Your task to perform on an android device: turn on location history Image 0: 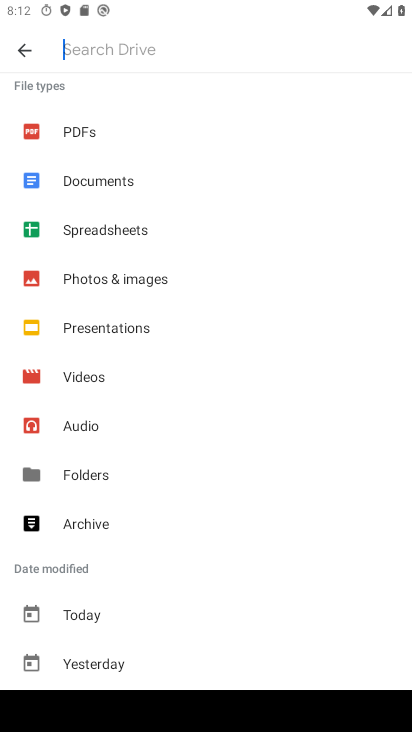
Step 0: drag from (231, 622) to (270, 209)
Your task to perform on an android device: turn on location history Image 1: 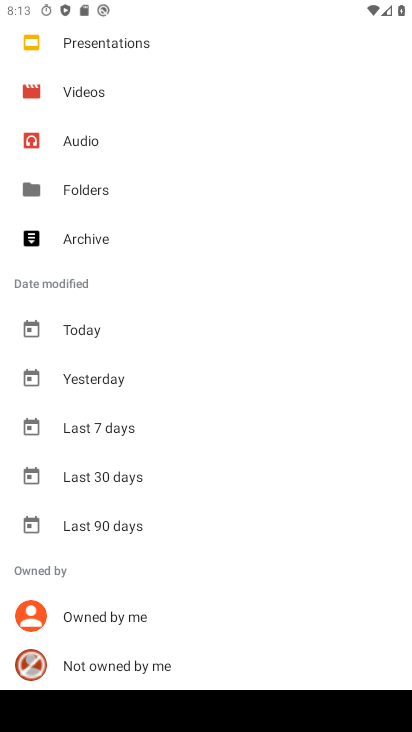
Step 1: drag from (225, 260) to (319, 165)
Your task to perform on an android device: turn on location history Image 2: 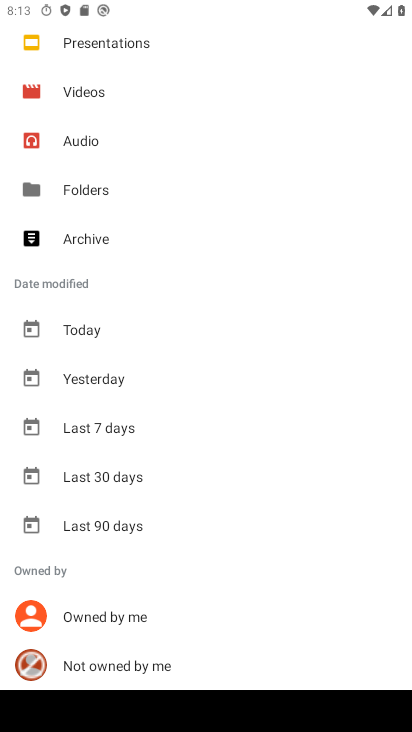
Step 2: press home button
Your task to perform on an android device: turn on location history Image 3: 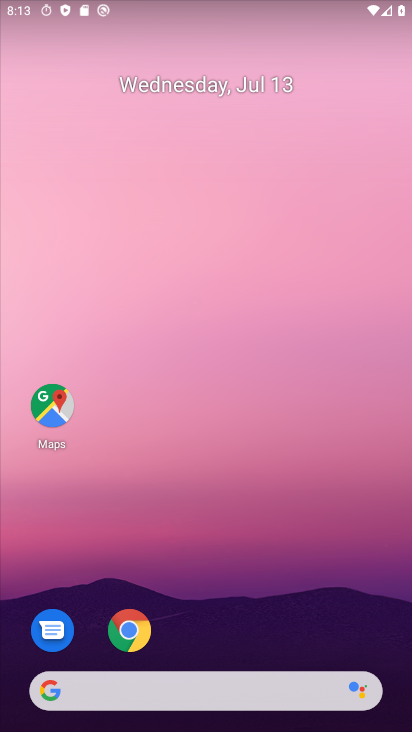
Step 3: drag from (203, 603) to (275, 13)
Your task to perform on an android device: turn on location history Image 4: 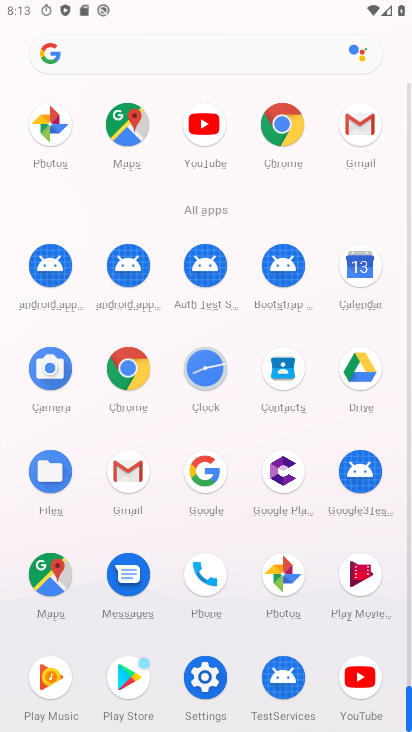
Step 4: click (202, 682)
Your task to perform on an android device: turn on location history Image 5: 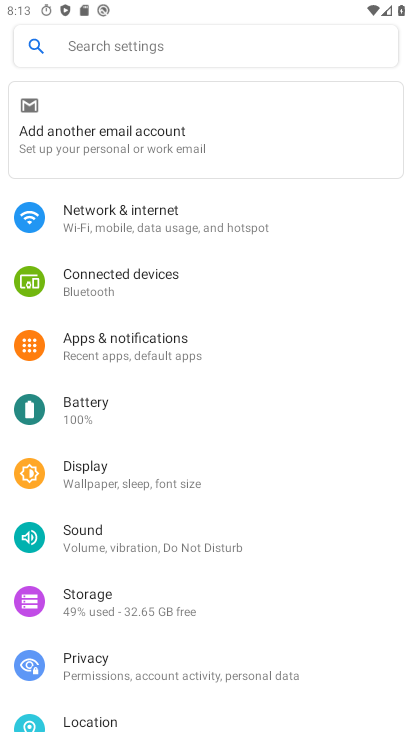
Step 5: drag from (166, 661) to (259, 160)
Your task to perform on an android device: turn on location history Image 6: 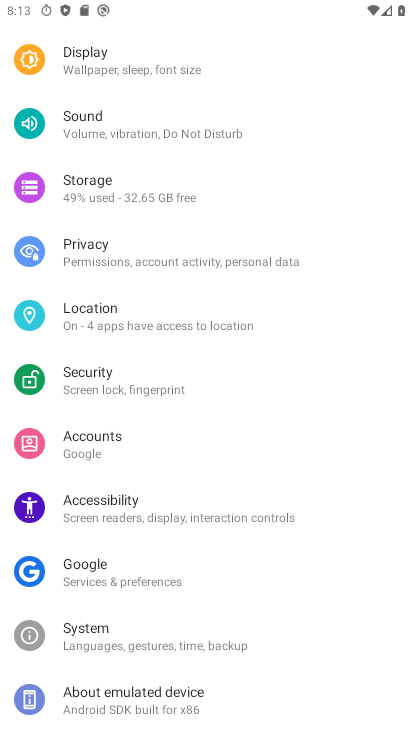
Step 6: click (121, 319)
Your task to perform on an android device: turn on location history Image 7: 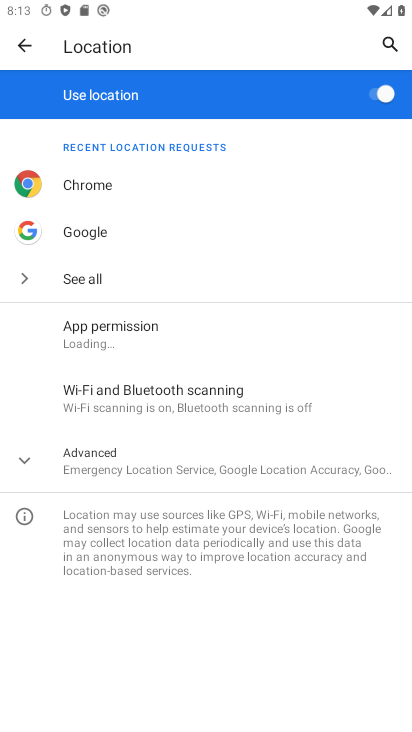
Step 7: click (133, 465)
Your task to perform on an android device: turn on location history Image 8: 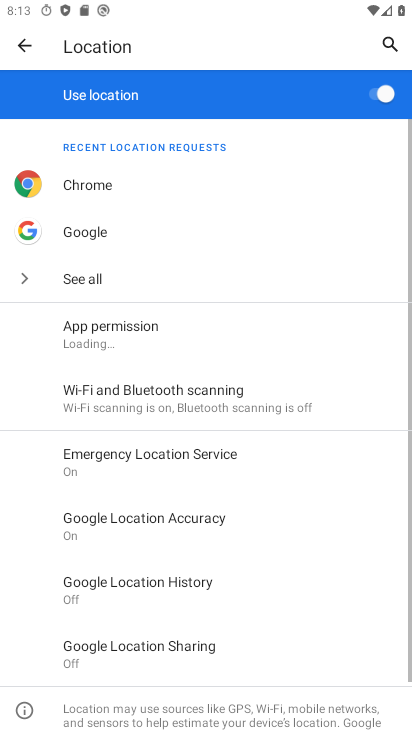
Step 8: drag from (307, 528) to (332, 229)
Your task to perform on an android device: turn on location history Image 9: 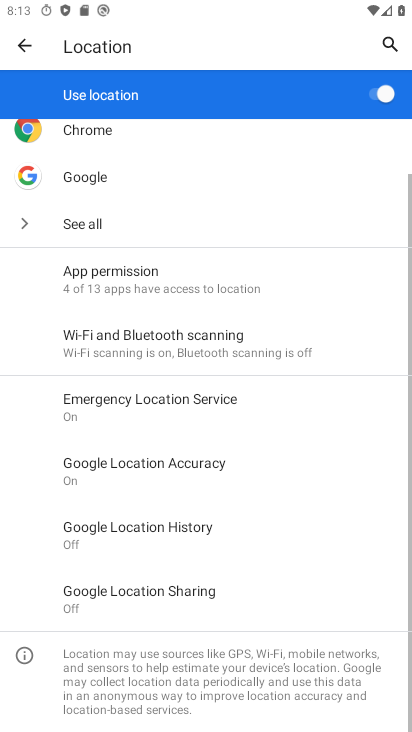
Step 9: click (164, 542)
Your task to perform on an android device: turn on location history Image 10: 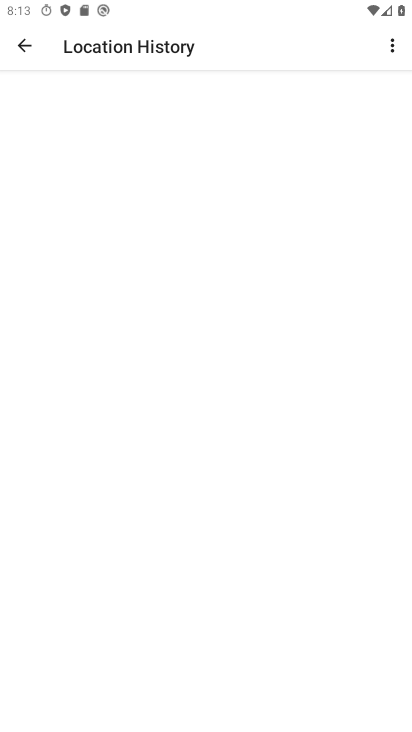
Step 10: drag from (278, 484) to (271, 270)
Your task to perform on an android device: turn on location history Image 11: 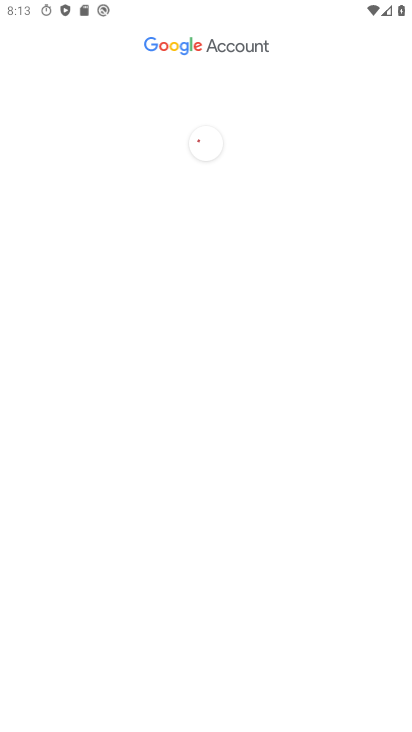
Step 11: drag from (230, 563) to (275, 163)
Your task to perform on an android device: turn on location history Image 12: 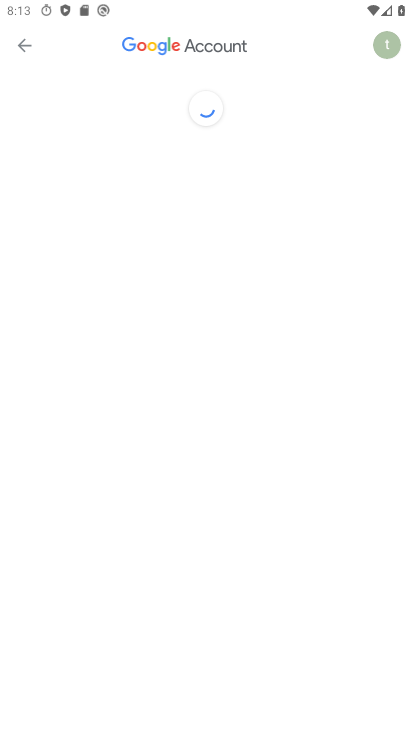
Step 12: drag from (217, 551) to (239, 315)
Your task to perform on an android device: turn on location history Image 13: 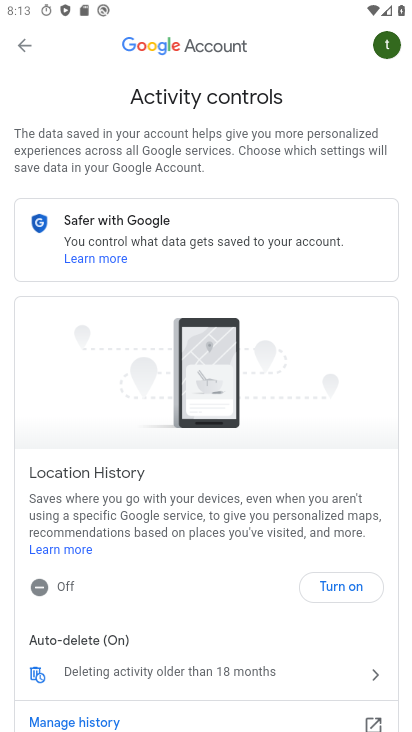
Step 13: drag from (211, 423) to (227, 315)
Your task to perform on an android device: turn on location history Image 14: 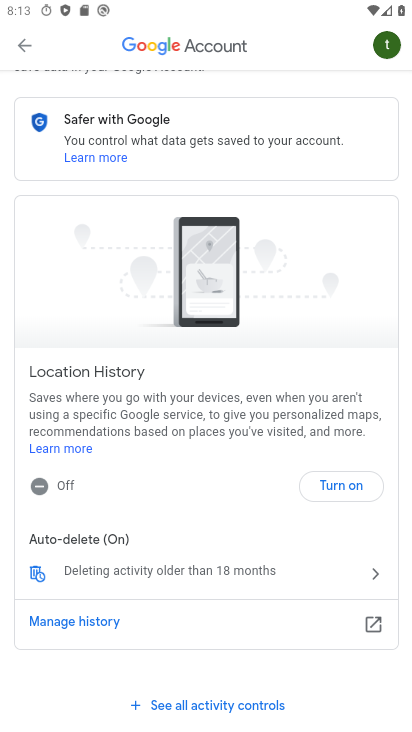
Step 14: drag from (214, 572) to (254, 475)
Your task to perform on an android device: turn on location history Image 15: 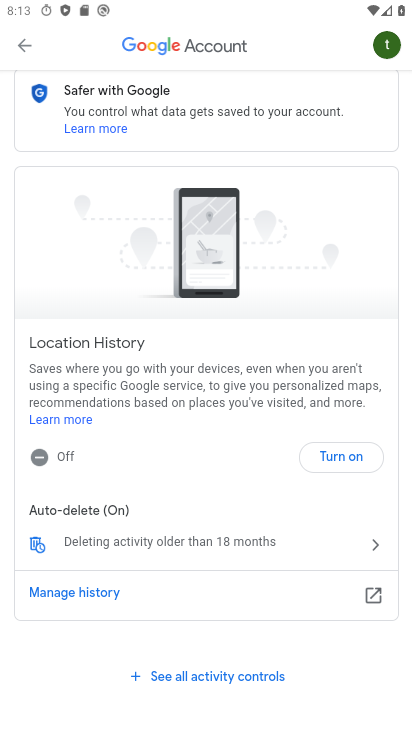
Step 15: drag from (199, 582) to (234, 331)
Your task to perform on an android device: turn on location history Image 16: 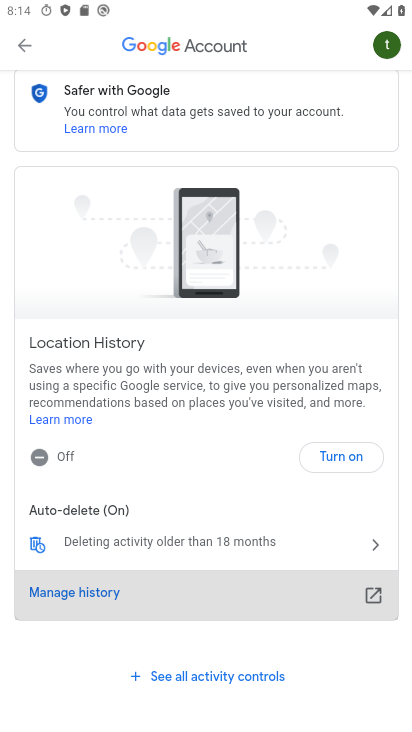
Step 16: drag from (240, 175) to (222, 631)
Your task to perform on an android device: turn on location history Image 17: 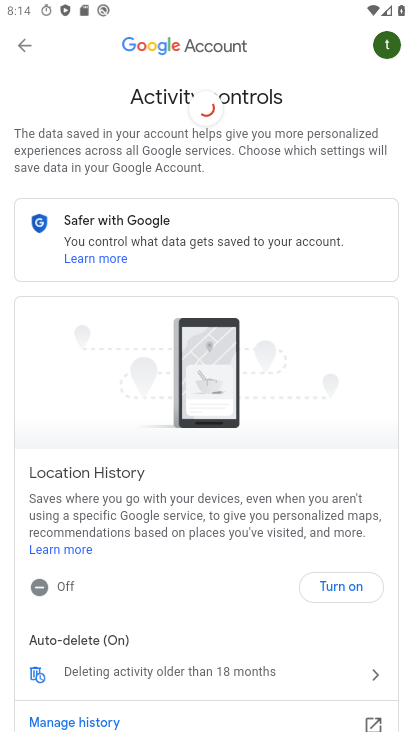
Step 17: drag from (180, 622) to (208, 458)
Your task to perform on an android device: turn on location history Image 18: 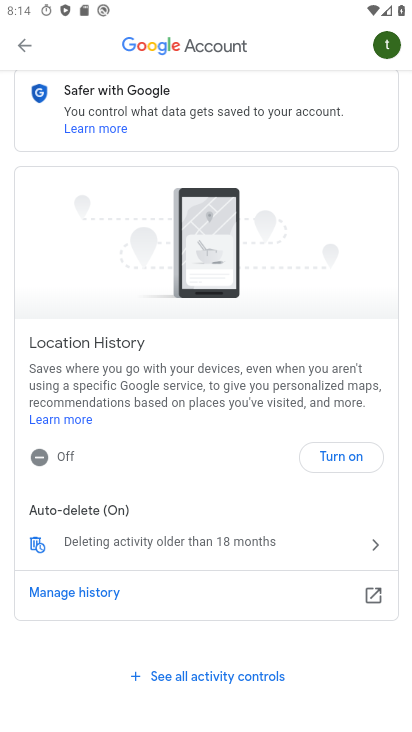
Step 18: drag from (195, 570) to (302, 193)
Your task to perform on an android device: turn on location history Image 19: 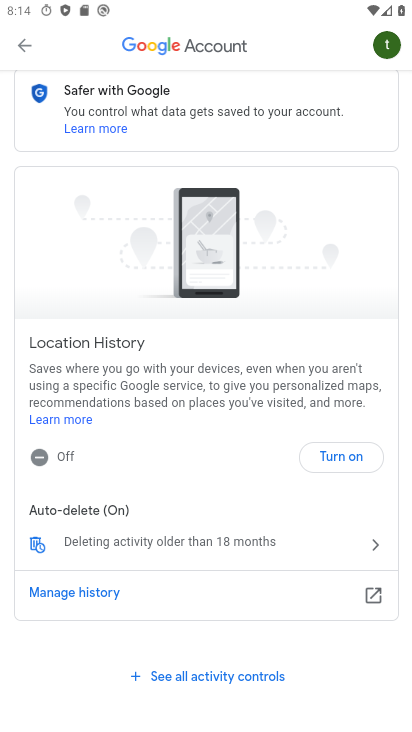
Step 19: drag from (186, 275) to (176, 626)
Your task to perform on an android device: turn on location history Image 20: 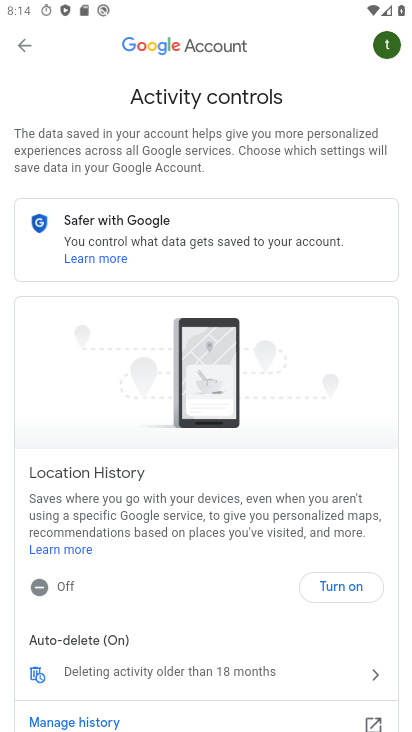
Step 20: drag from (199, 654) to (260, 376)
Your task to perform on an android device: turn on location history Image 21: 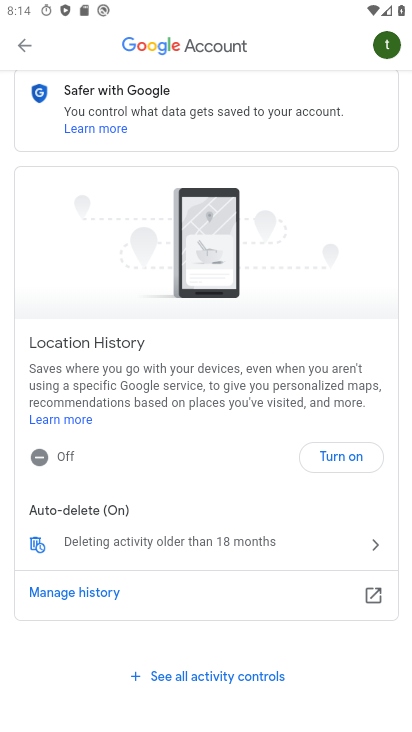
Step 21: click (340, 451)
Your task to perform on an android device: turn on location history Image 22: 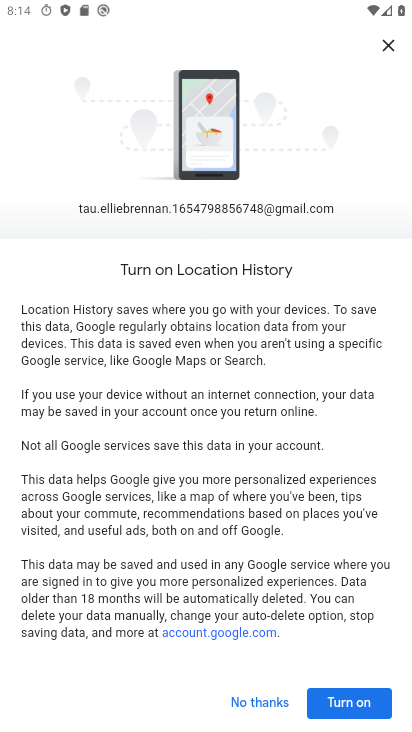
Step 22: drag from (247, 573) to (267, 191)
Your task to perform on an android device: turn on location history Image 23: 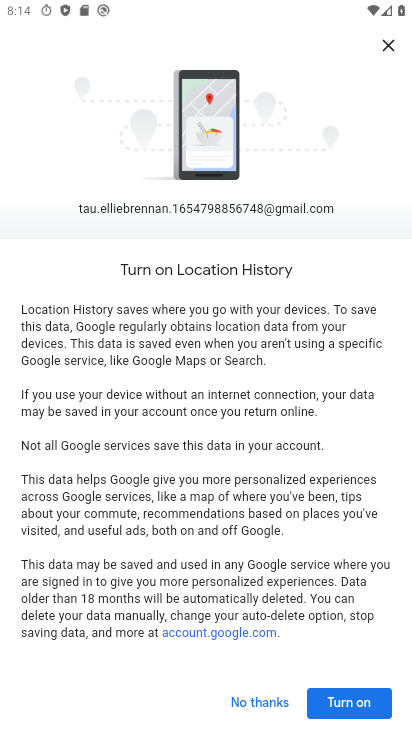
Step 23: click (316, 711)
Your task to perform on an android device: turn on location history Image 24: 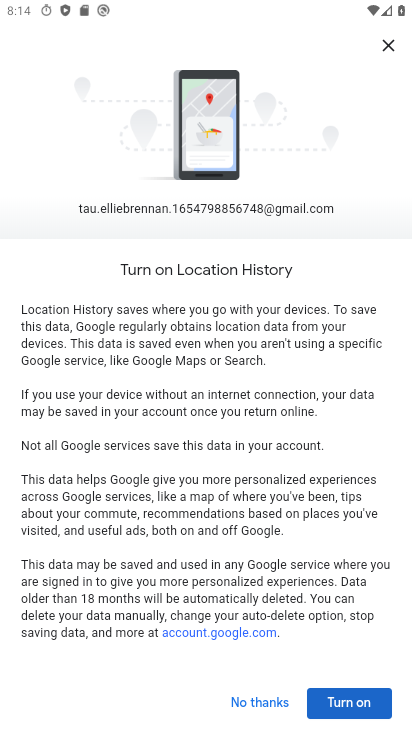
Step 24: click (346, 709)
Your task to perform on an android device: turn on location history Image 25: 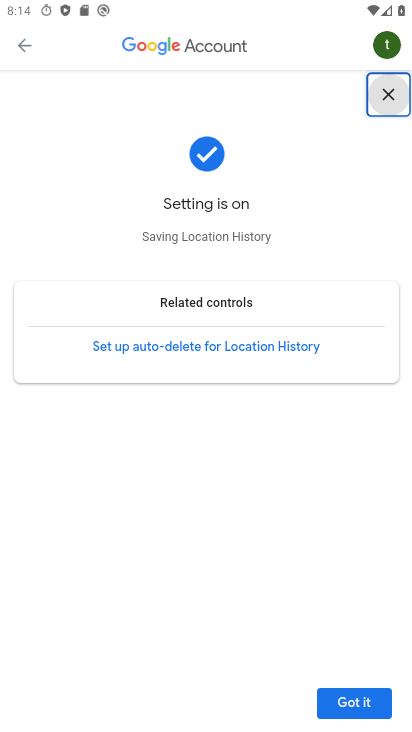
Step 25: click (354, 697)
Your task to perform on an android device: turn on location history Image 26: 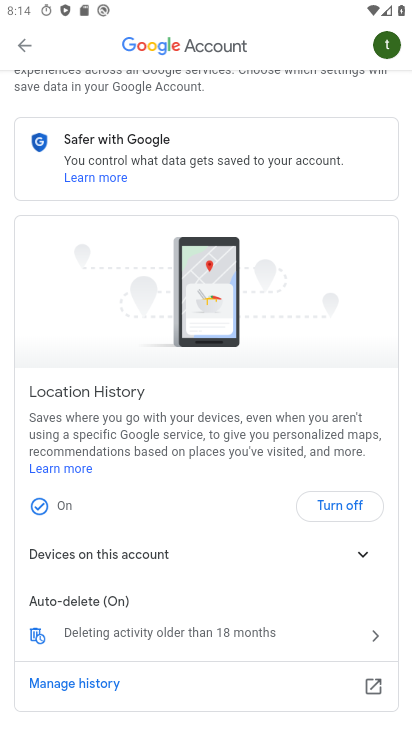
Step 26: task complete